Your task to perform on an android device: Open settings on Google Maps Image 0: 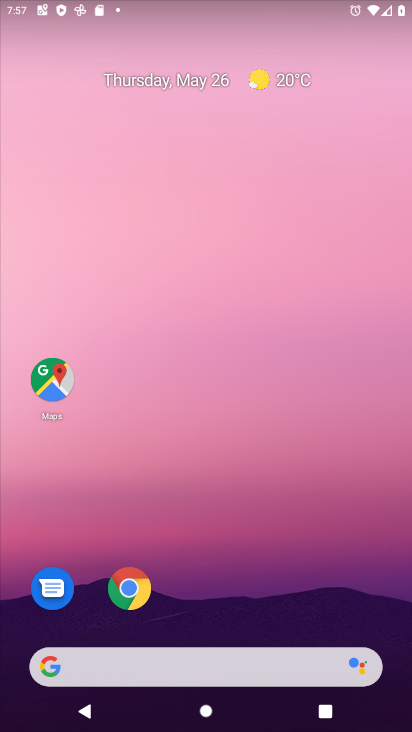
Step 0: drag from (387, 657) to (290, 46)
Your task to perform on an android device: Open settings on Google Maps Image 1: 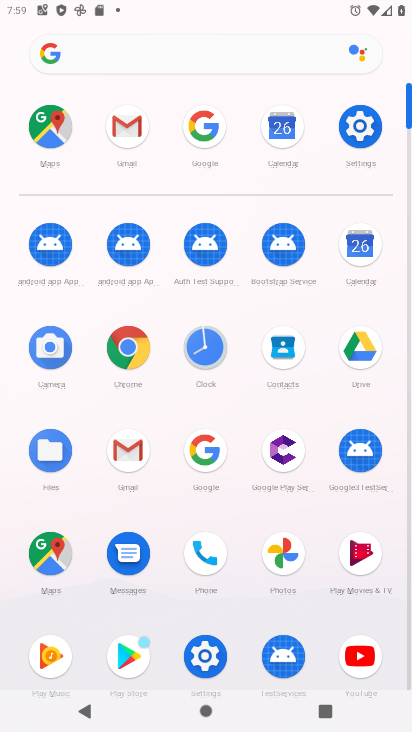
Step 1: click (203, 658)
Your task to perform on an android device: Open settings on Google Maps Image 2: 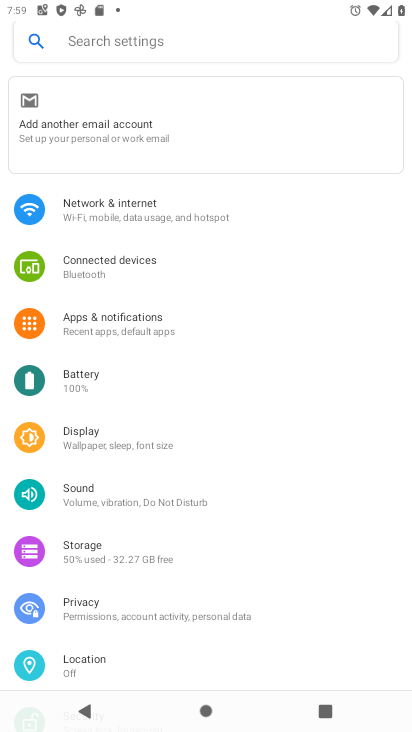
Step 2: press home button
Your task to perform on an android device: Open settings on Google Maps Image 3: 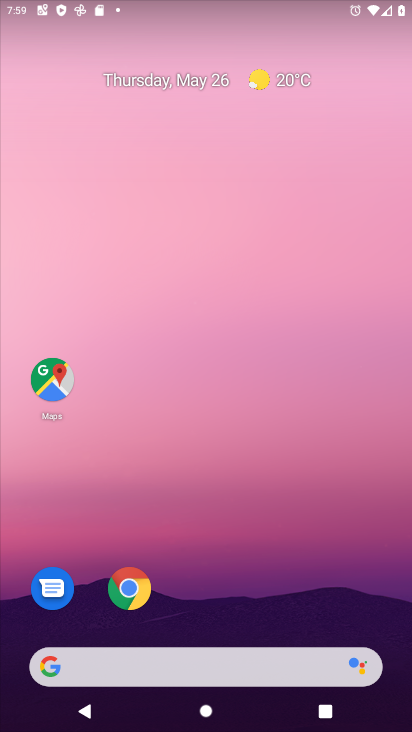
Step 3: click (46, 371)
Your task to perform on an android device: Open settings on Google Maps Image 4: 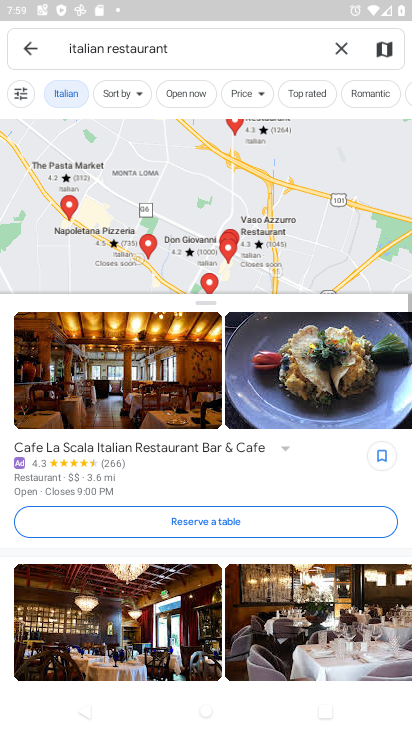
Step 4: click (337, 40)
Your task to perform on an android device: Open settings on Google Maps Image 5: 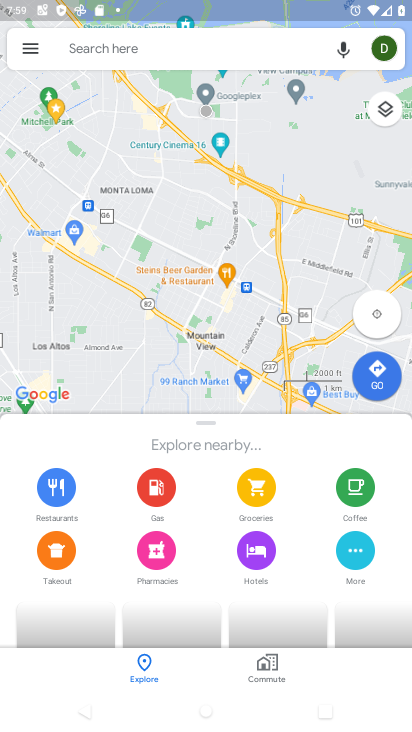
Step 5: click (28, 48)
Your task to perform on an android device: Open settings on Google Maps Image 6: 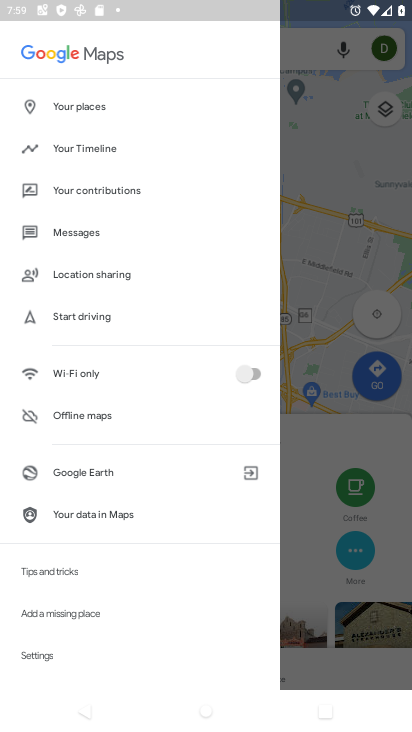
Step 6: click (47, 656)
Your task to perform on an android device: Open settings on Google Maps Image 7: 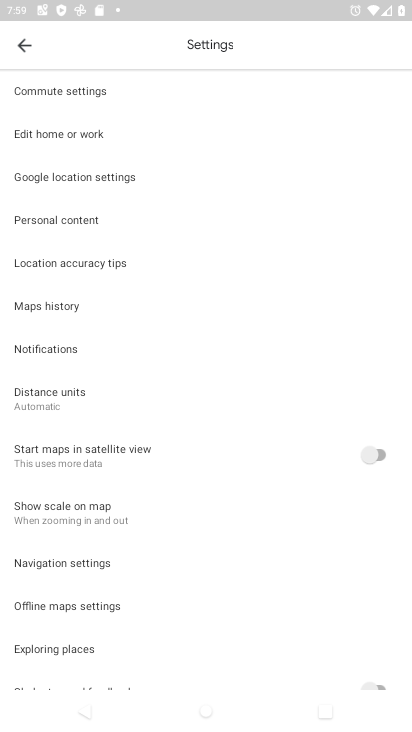
Step 7: task complete